Your task to perform on an android device: Open the calendar app, open the side menu, and click the "Day" option Image 0: 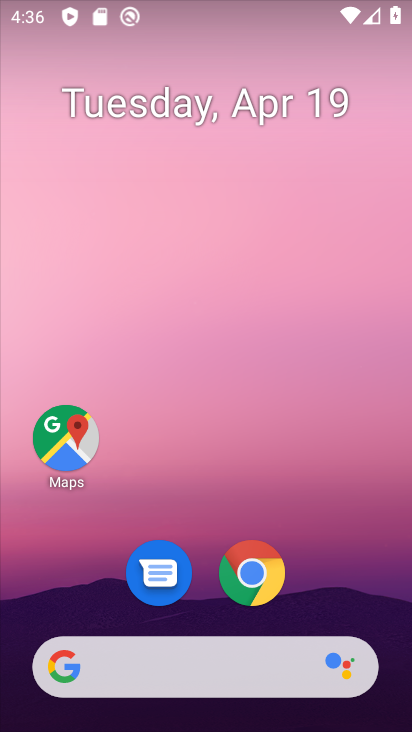
Step 0: drag from (353, 601) to (383, 76)
Your task to perform on an android device: Open the calendar app, open the side menu, and click the "Day" option Image 1: 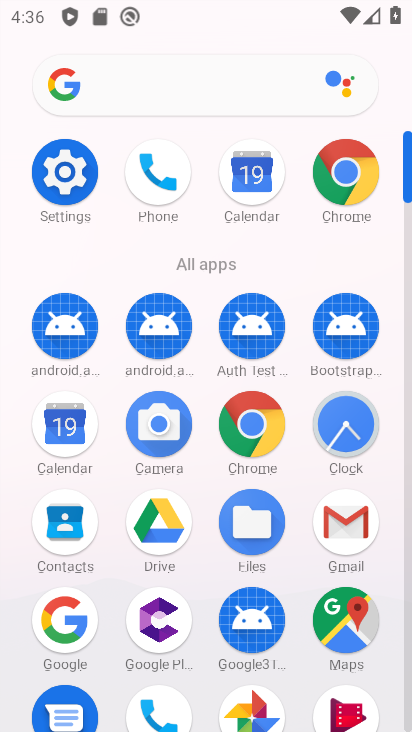
Step 1: click (68, 446)
Your task to perform on an android device: Open the calendar app, open the side menu, and click the "Day" option Image 2: 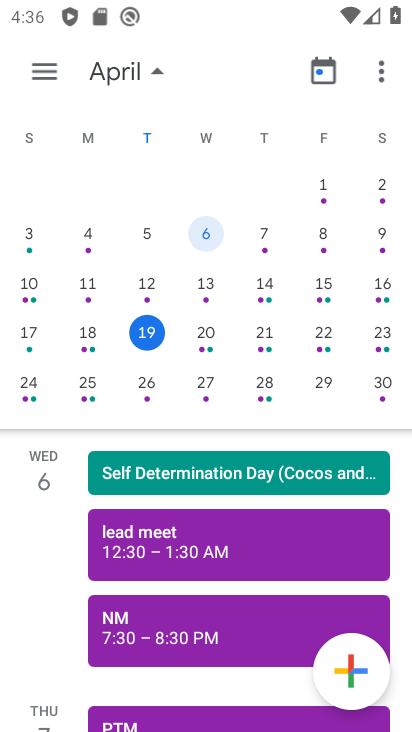
Step 2: click (43, 62)
Your task to perform on an android device: Open the calendar app, open the side menu, and click the "Day" option Image 3: 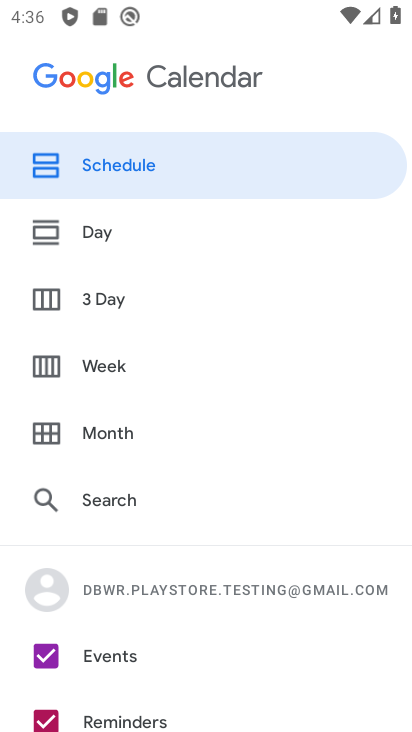
Step 3: click (97, 236)
Your task to perform on an android device: Open the calendar app, open the side menu, and click the "Day" option Image 4: 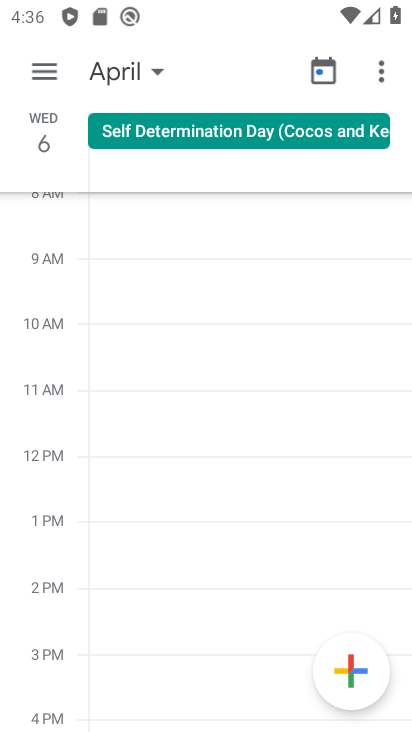
Step 4: task complete